Your task to perform on an android device: check out phone information Image 0: 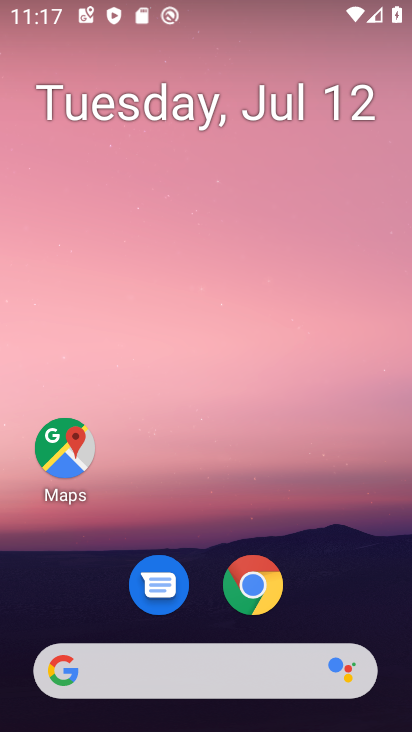
Step 0: drag from (327, 588) to (285, 4)
Your task to perform on an android device: check out phone information Image 1: 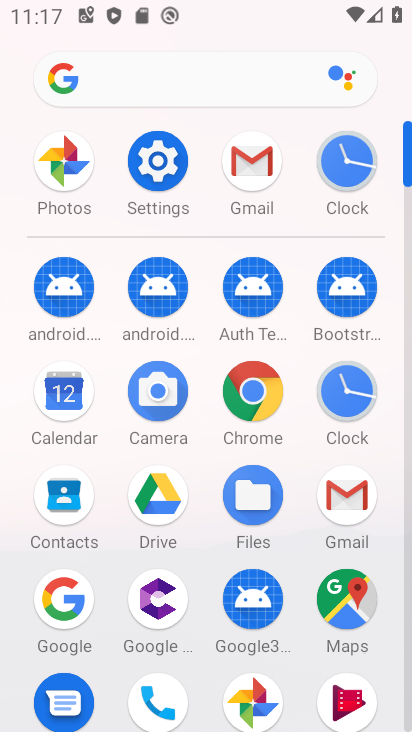
Step 1: drag from (203, 615) to (205, 441)
Your task to perform on an android device: check out phone information Image 2: 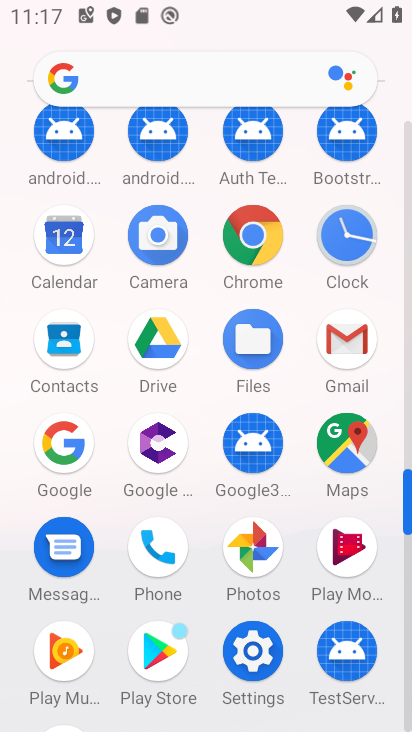
Step 2: click (169, 540)
Your task to perform on an android device: check out phone information Image 3: 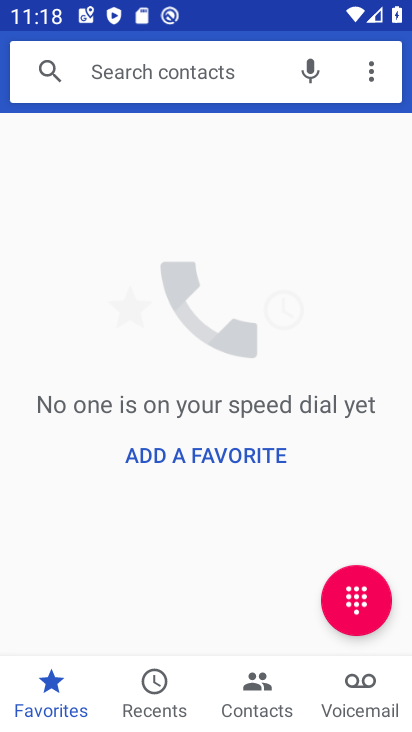
Step 3: click (370, 79)
Your task to perform on an android device: check out phone information Image 4: 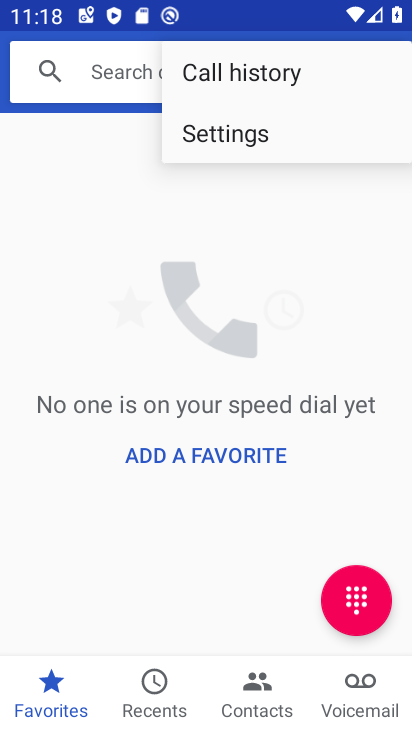
Step 4: click (325, 131)
Your task to perform on an android device: check out phone information Image 5: 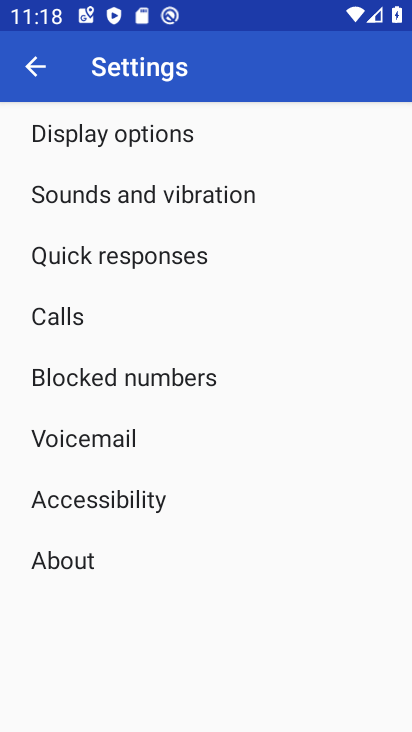
Step 5: click (85, 559)
Your task to perform on an android device: check out phone information Image 6: 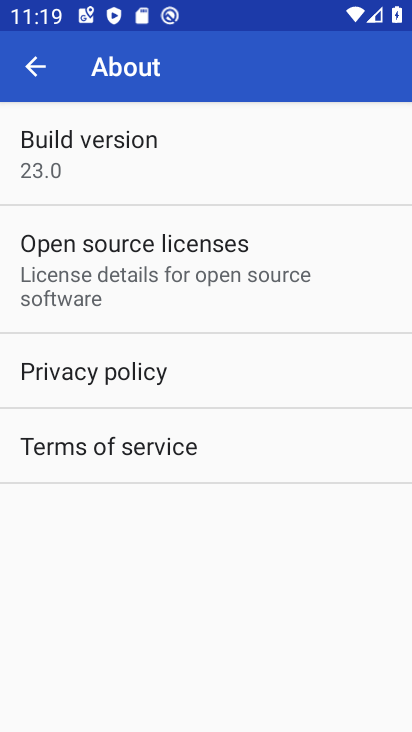
Step 6: task complete